Your task to perform on an android device: toggle airplane mode Image 0: 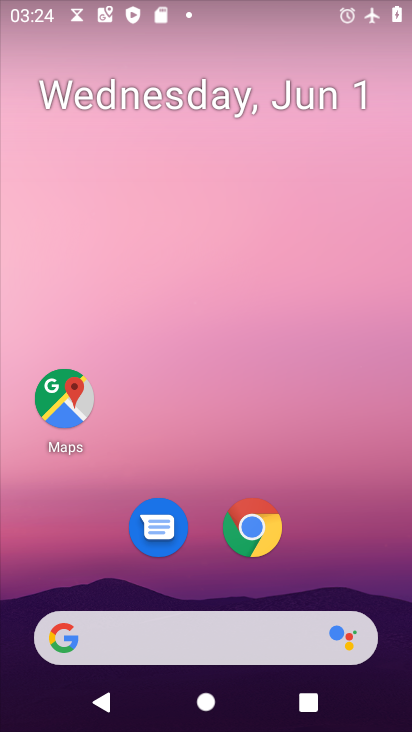
Step 0: drag from (325, 555) to (248, 143)
Your task to perform on an android device: toggle airplane mode Image 1: 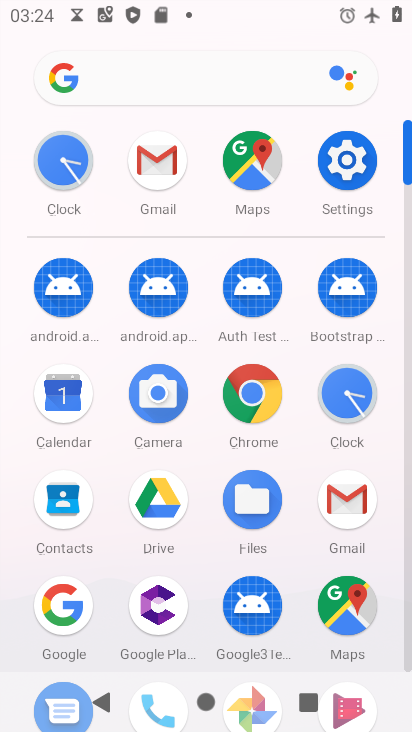
Step 1: click (346, 160)
Your task to perform on an android device: toggle airplane mode Image 2: 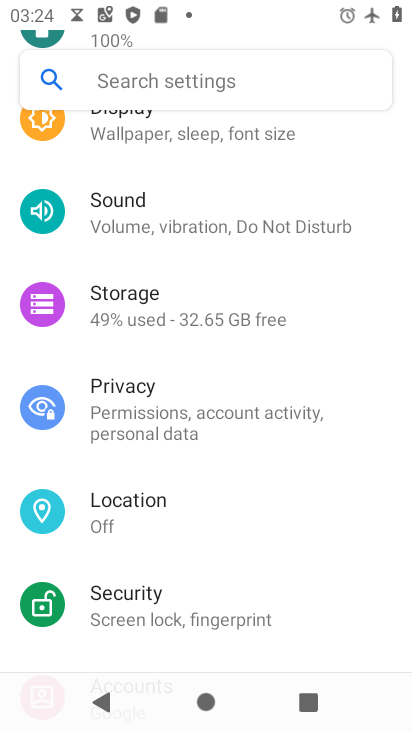
Step 2: drag from (184, 365) to (202, 509)
Your task to perform on an android device: toggle airplane mode Image 3: 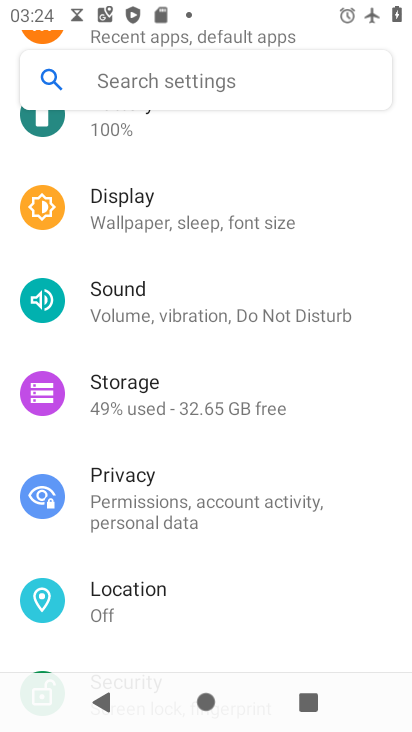
Step 3: drag from (180, 269) to (200, 361)
Your task to perform on an android device: toggle airplane mode Image 4: 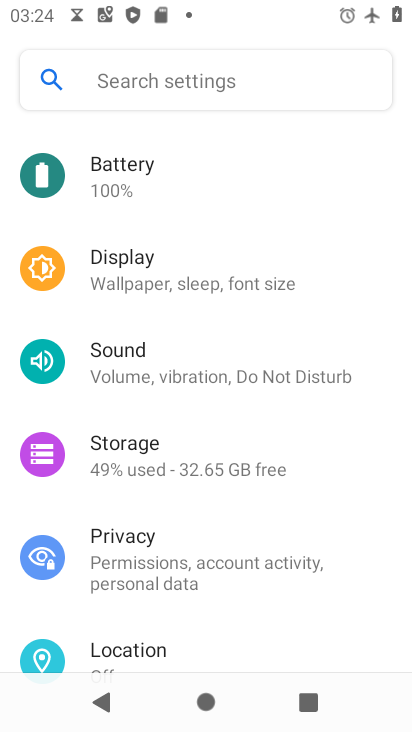
Step 4: drag from (171, 214) to (231, 340)
Your task to perform on an android device: toggle airplane mode Image 5: 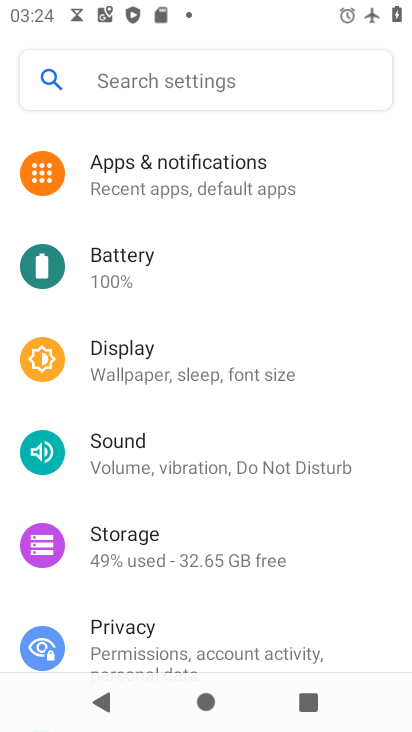
Step 5: drag from (191, 240) to (239, 337)
Your task to perform on an android device: toggle airplane mode Image 6: 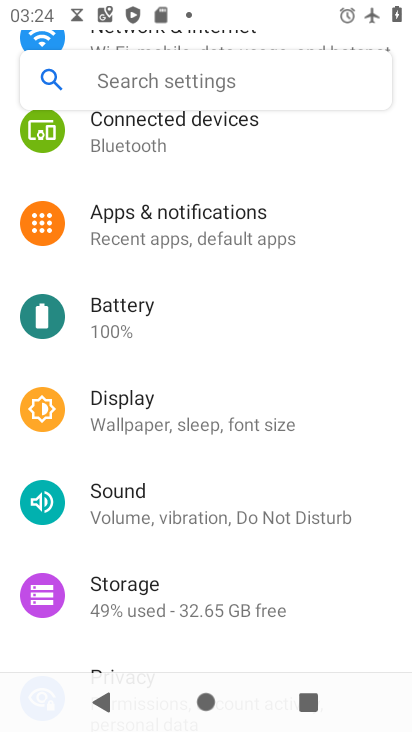
Step 6: drag from (213, 186) to (232, 365)
Your task to perform on an android device: toggle airplane mode Image 7: 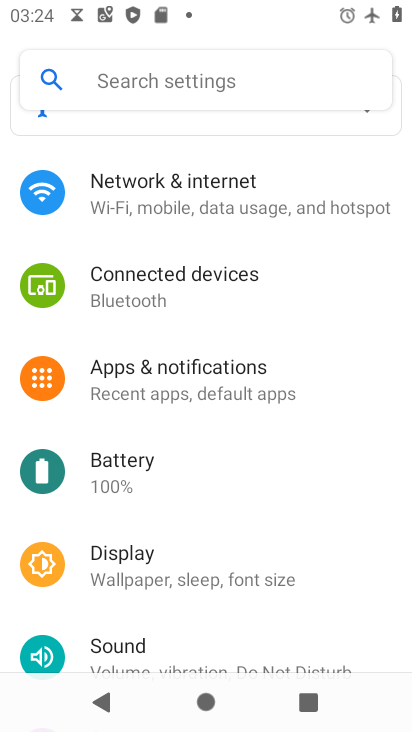
Step 7: click (209, 218)
Your task to perform on an android device: toggle airplane mode Image 8: 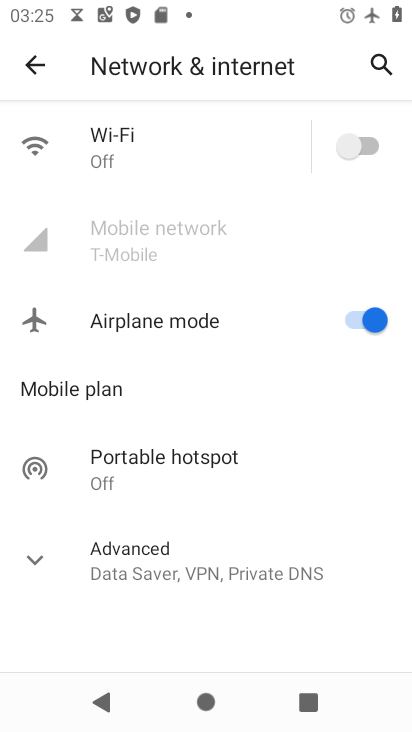
Step 8: click (370, 328)
Your task to perform on an android device: toggle airplane mode Image 9: 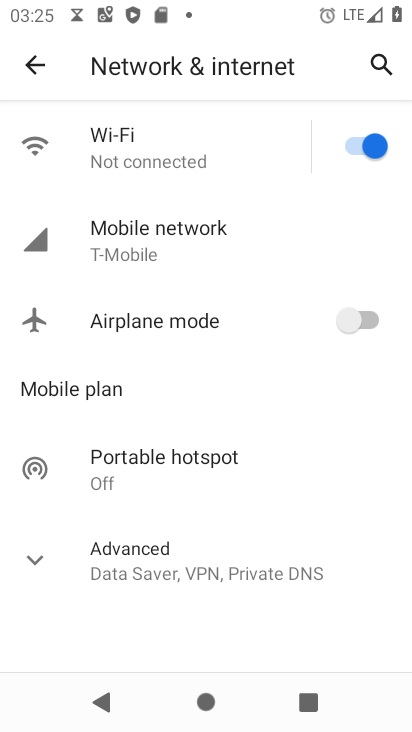
Step 9: task complete